Your task to perform on an android device: visit the assistant section in the google photos Image 0: 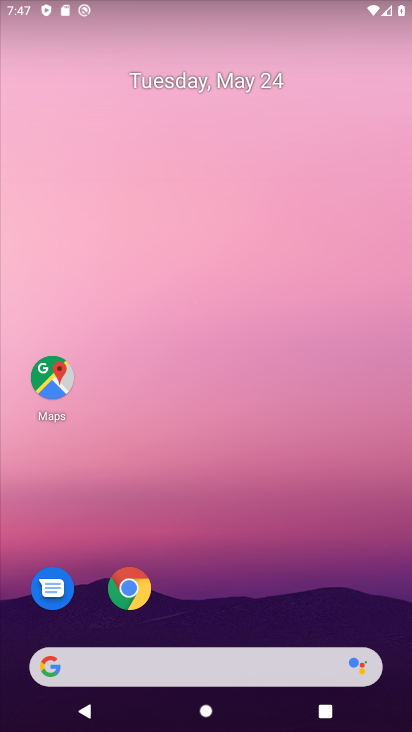
Step 0: drag from (161, 618) to (220, 60)
Your task to perform on an android device: visit the assistant section in the google photos Image 1: 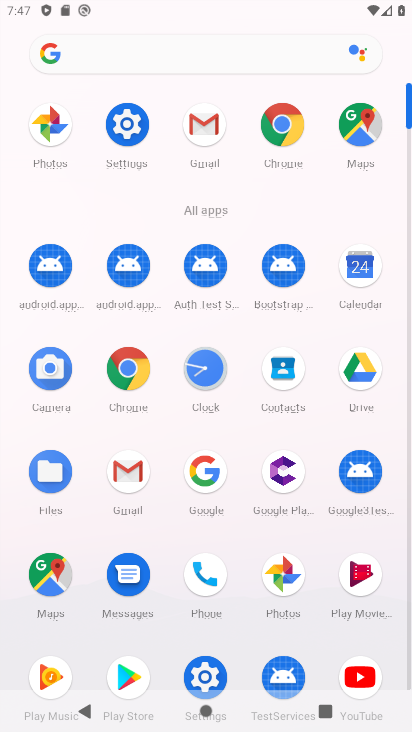
Step 1: click (294, 563)
Your task to perform on an android device: visit the assistant section in the google photos Image 2: 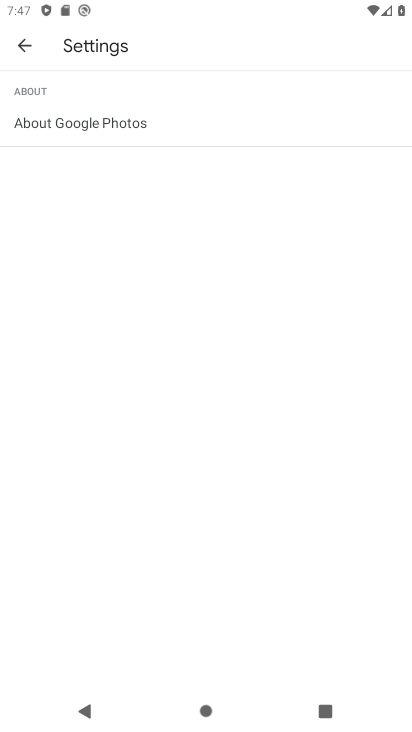
Step 2: click (22, 45)
Your task to perform on an android device: visit the assistant section in the google photos Image 3: 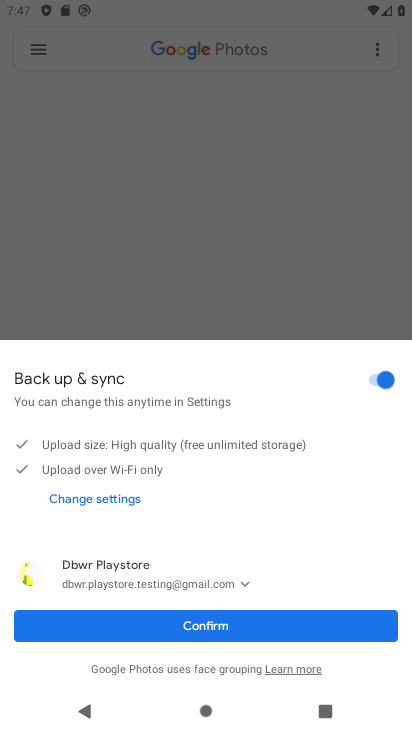
Step 3: click (185, 631)
Your task to perform on an android device: visit the assistant section in the google photos Image 4: 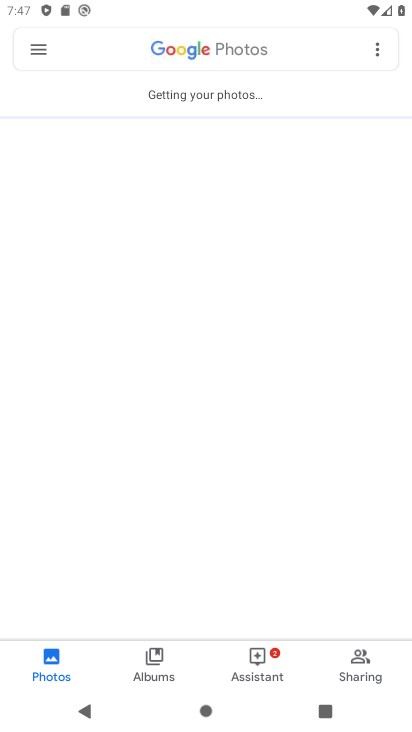
Step 4: click (250, 676)
Your task to perform on an android device: visit the assistant section in the google photos Image 5: 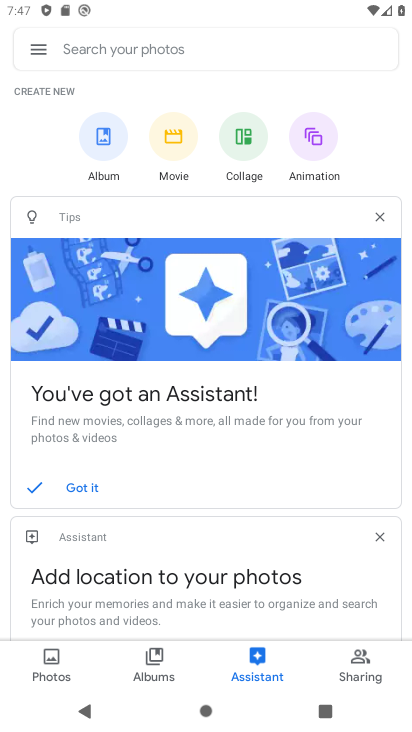
Step 5: task complete